Your task to perform on an android device: see tabs open on other devices in the chrome app Image 0: 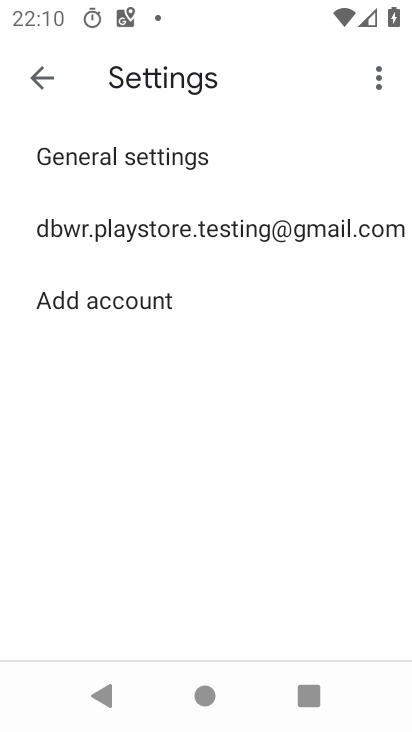
Step 0: press home button
Your task to perform on an android device: see tabs open on other devices in the chrome app Image 1: 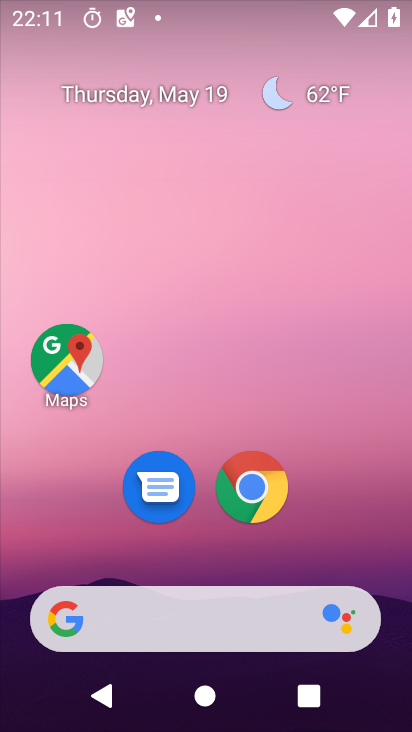
Step 1: click (263, 483)
Your task to perform on an android device: see tabs open on other devices in the chrome app Image 2: 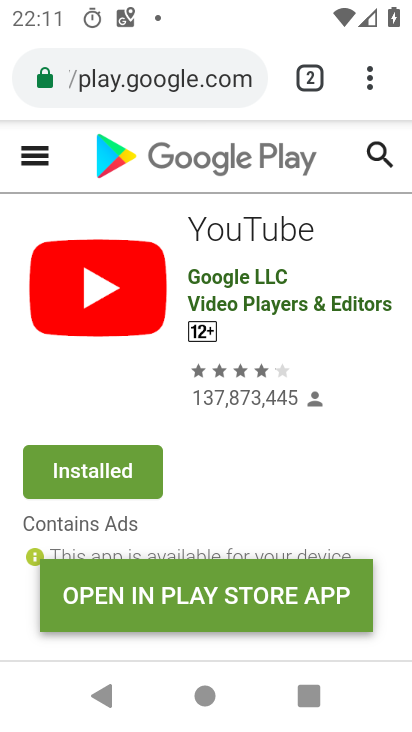
Step 2: click (381, 77)
Your task to perform on an android device: see tabs open on other devices in the chrome app Image 3: 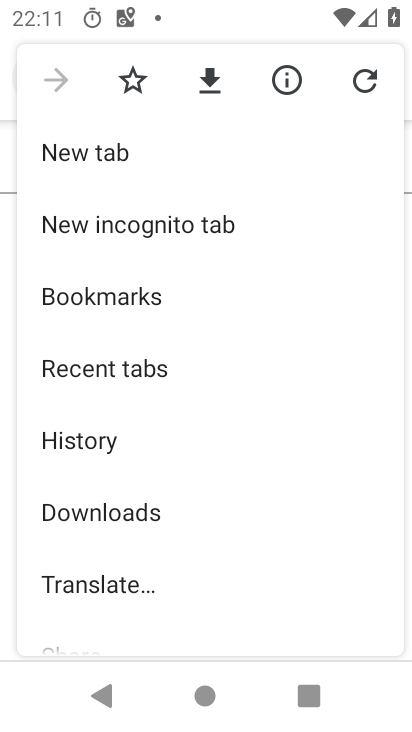
Step 3: click (142, 367)
Your task to perform on an android device: see tabs open on other devices in the chrome app Image 4: 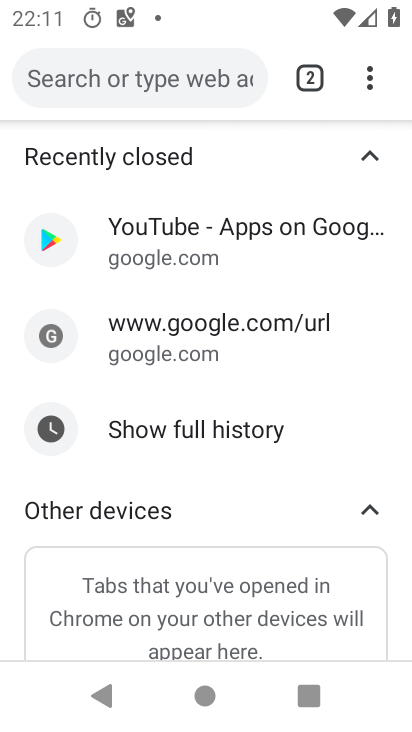
Step 4: task complete